Your task to perform on an android device: turn off notifications in google photos Image 0: 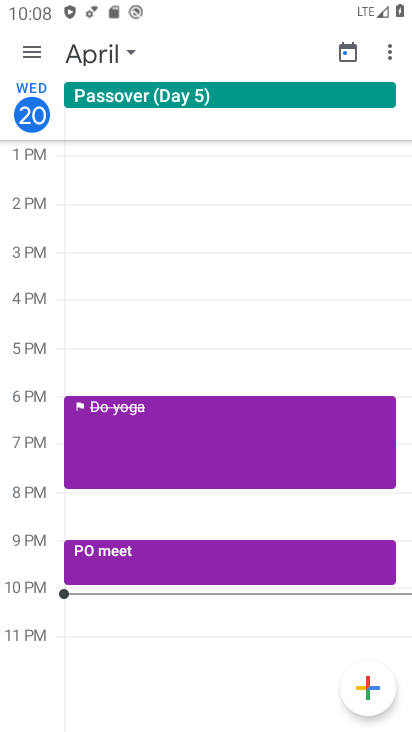
Step 0: press home button
Your task to perform on an android device: turn off notifications in google photos Image 1: 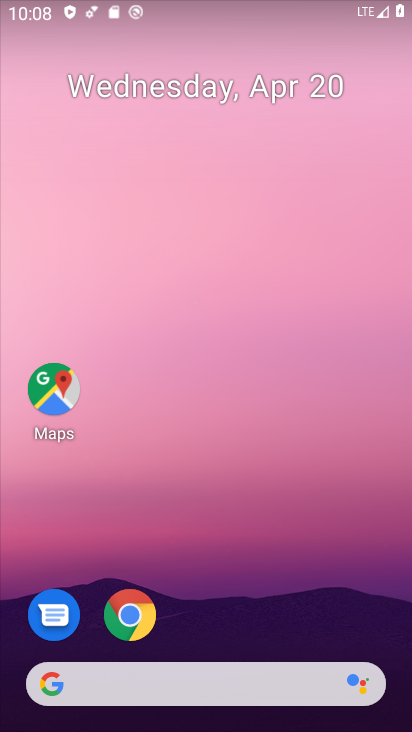
Step 1: drag from (273, 542) to (316, 81)
Your task to perform on an android device: turn off notifications in google photos Image 2: 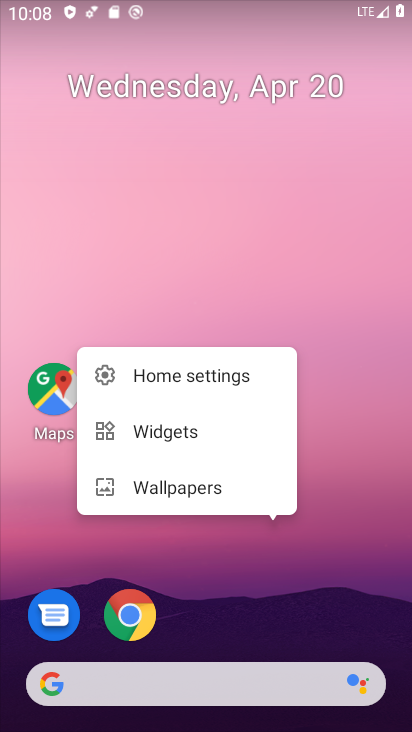
Step 2: drag from (337, 519) to (299, 7)
Your task to perform on an android device: turn off notifications in google photos Image 3: 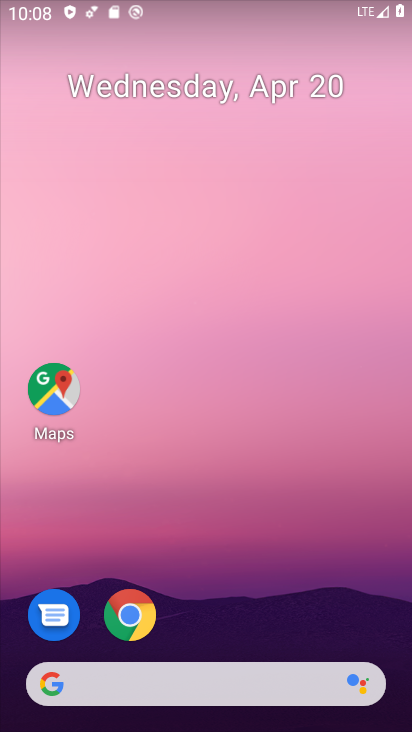
Step 3: drag from (241, 533) to (267, 35)
Your task to perform on an android device: turn off notifications in google photos Image 4: 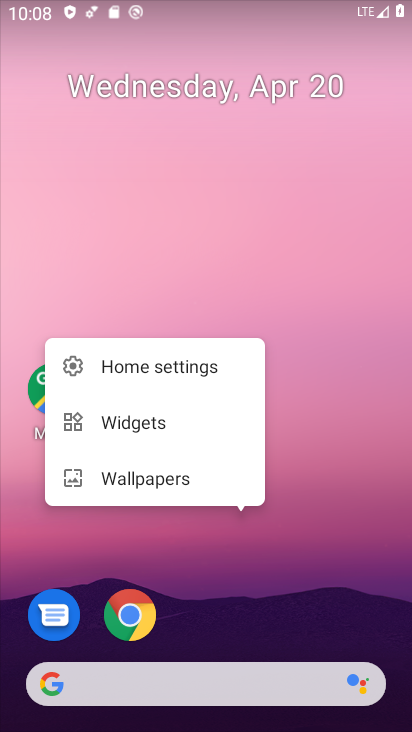
Step 4: click (366, 550)
Your task to perform on an android device: turn off notifications in google photos Image 5: 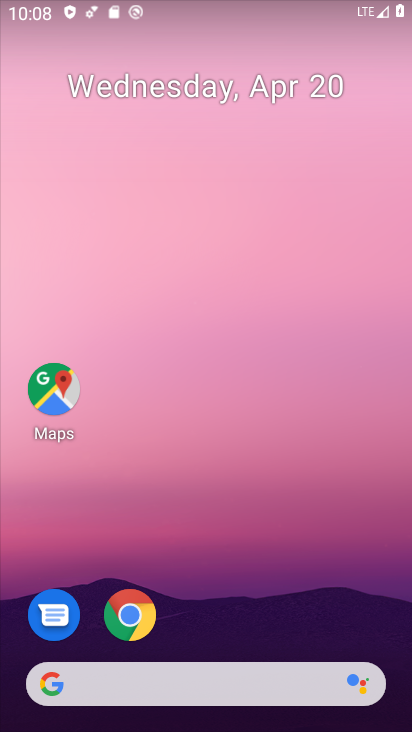
Step 5: drag from (285, 578) to (329, 5)
Your task to perform on an android device: turn off notifications in google photos Image 6: 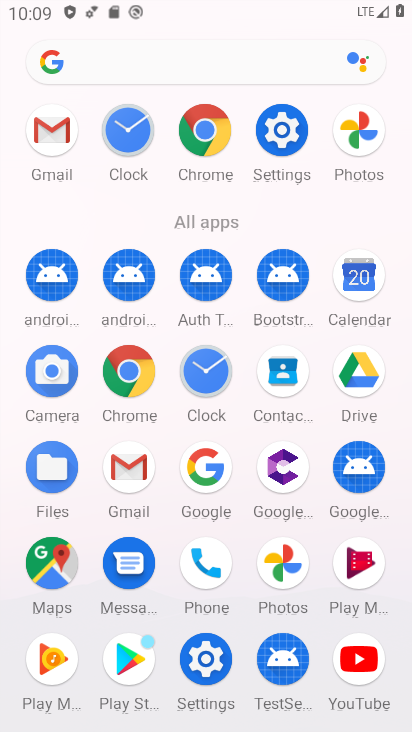
Step 6: click (272, 583)
Your task to perform on an android device: turn off notifications in google photos Image 7: 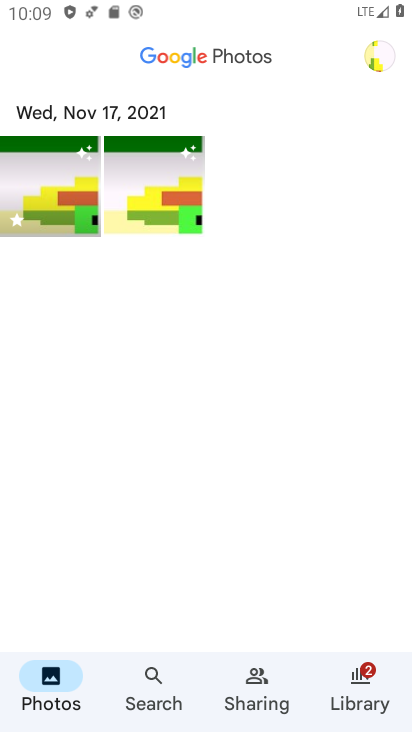
Step 7: click (385, 49)
Your task to perform on an android device: turn off notifications in google photos Image 8: 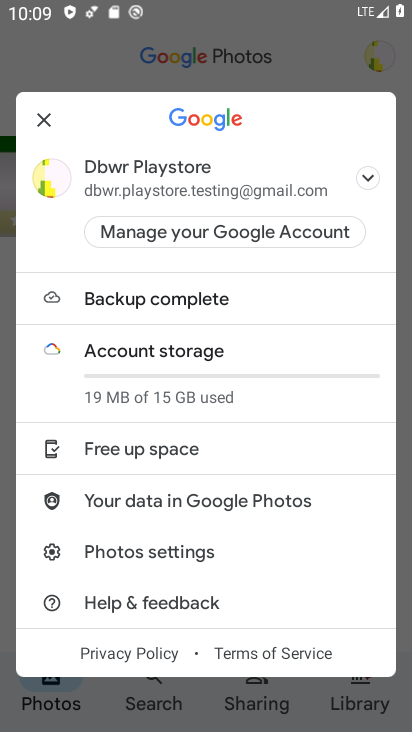
Step 8: click (224, 545)
Your task to perform on an android device: turn off notifications in google photos Image 9: 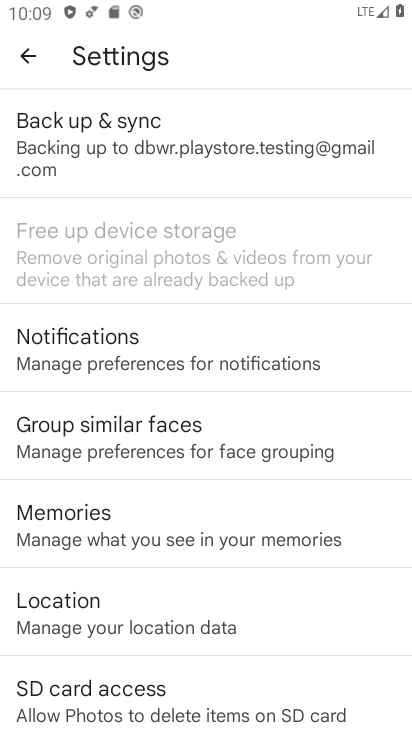
Step 9: click (203, 360)
Your task to perform on an android device: turn off notifications in google photos Image 10: 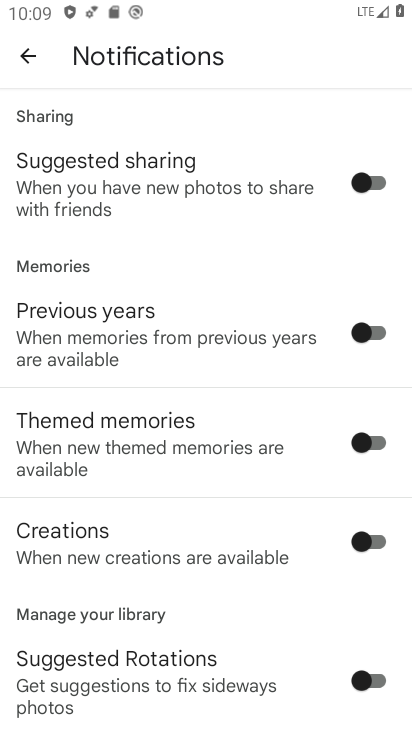
Step 10: click (325, 170)
Your task to perform on an android device: turn off notifications in google photos Image 11: 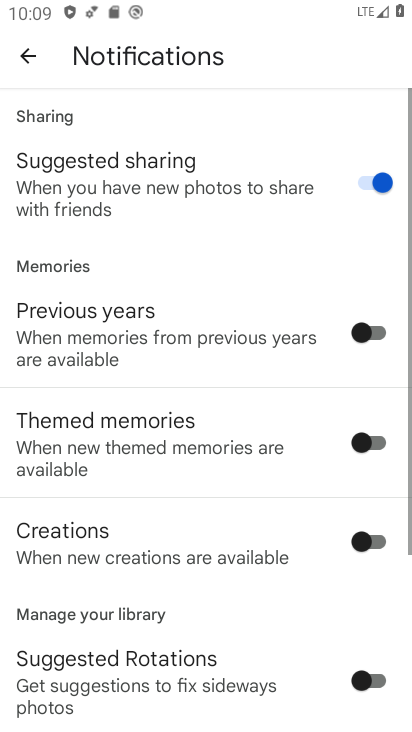
Step 11: task complete